Your task to perform on an android device: Open settings on Google Maps Image 0: 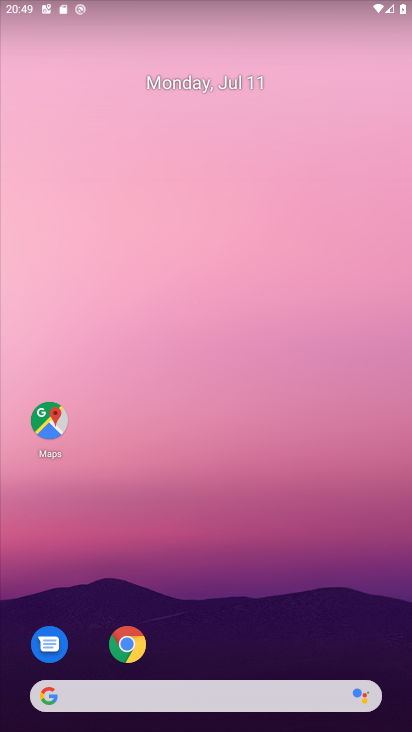
Step 0: drag from (207, 624) to (186, 273)
Your task to perform on an android device: Open settings on Google Maps Image 1: 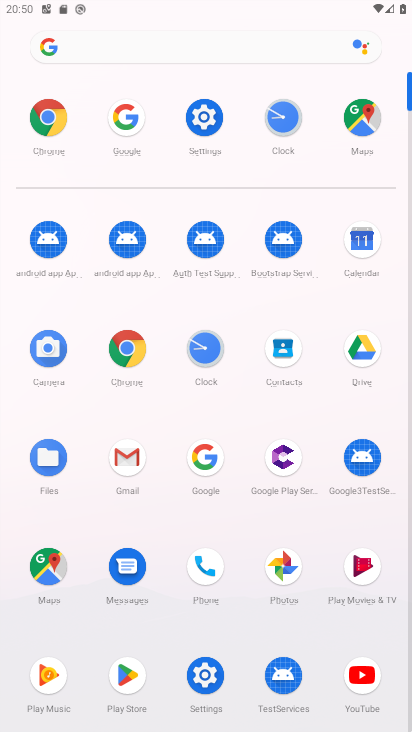
Step 1: click (361, 103)
Your task to perform on an android device: Open settings on Google Maps Image 2: 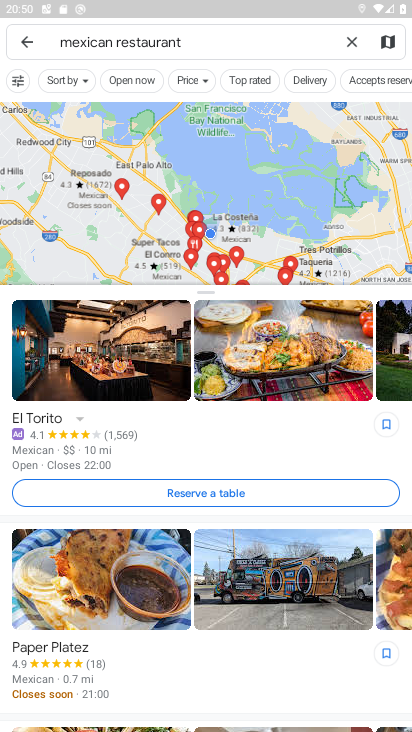
Step 2: task complete